Your task to perform on an android device: Open ESPN.com Image 0: 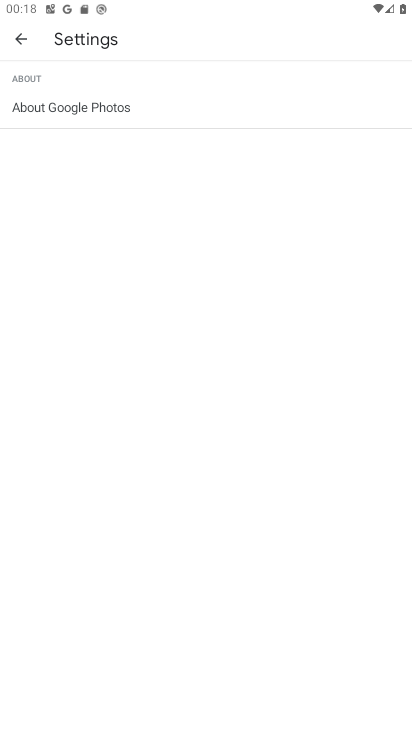
Step 0: press home button
Your task to perform on an android device: Open ESPN.com Image 1: 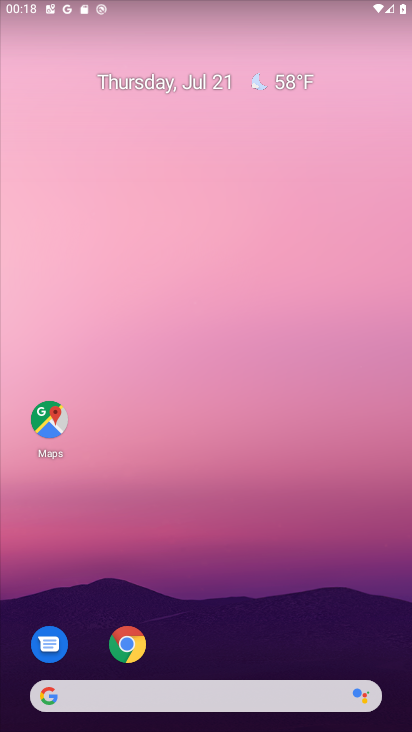
Step 1: click (253, 699)
Your task to perform on an android device: Open ESPN.com Image 2: 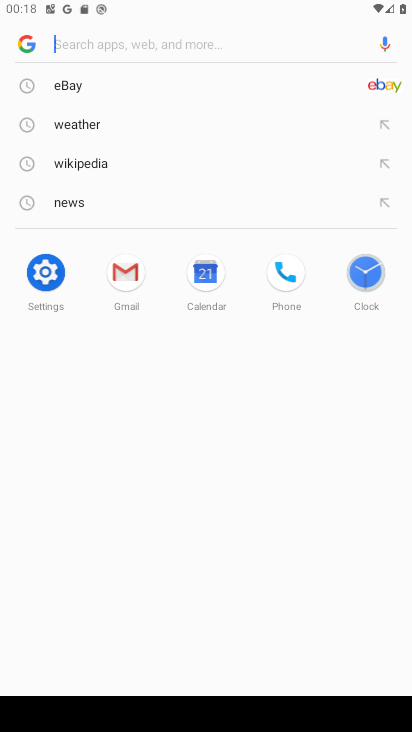
Step 2: type "espn.com"
Your task to perform on an android device: Open ESPN.com Image 3: 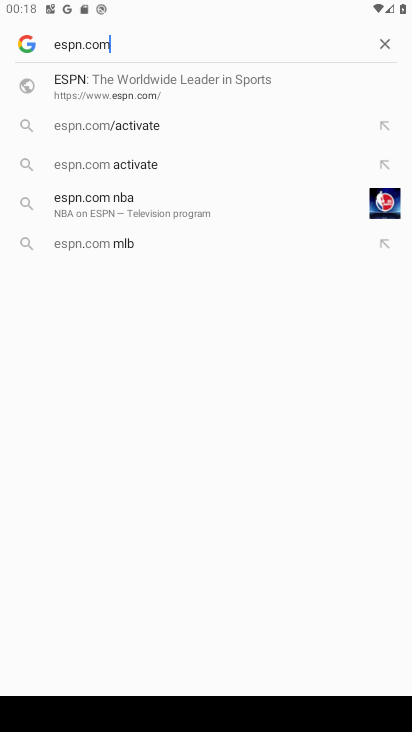
Step 3: click (155, 83)
Your task to perform on an android device: Open ESPN.com Image 4: 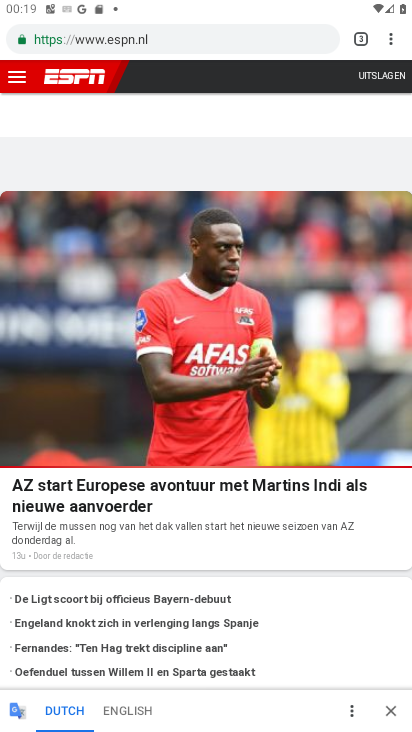
Step 4: task complete